Your task to perform on an android device: Show me the alarms in the clock app Image 0: 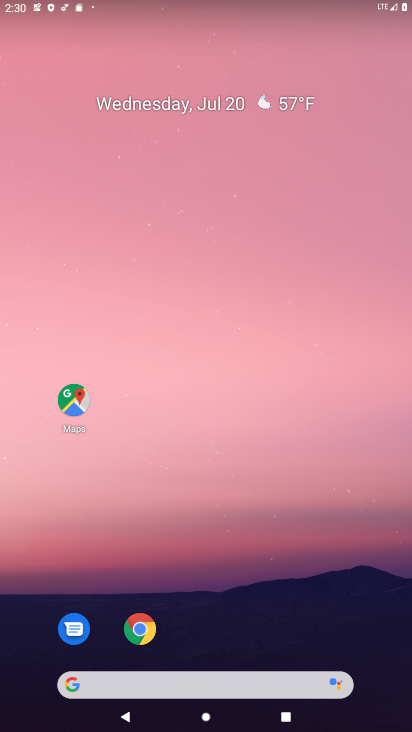
Step 0: drag from (221, 678) to (183, 25)
Your task to perform on an android device: Show me the alarms in the clock app Image 1: 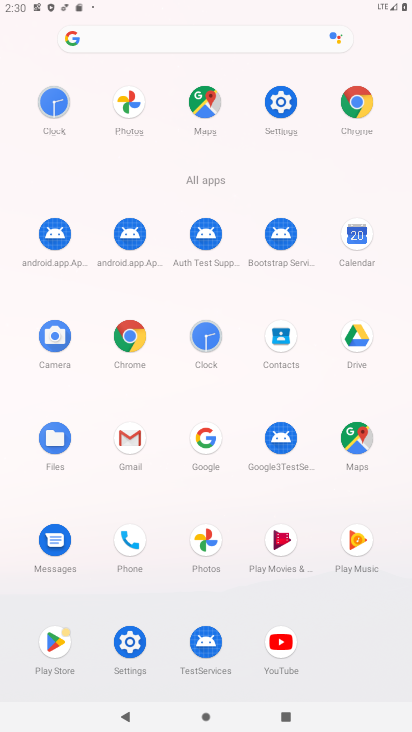
Step 1: click (197, 359)
Your task to perform on an android device: Show me the alarms in the clock app Image 2: 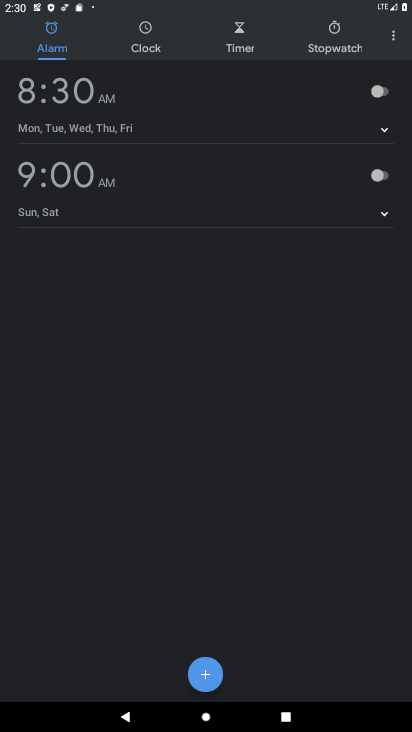
Step 2: task complete